Your task to perform on an android device: Go to notification settings Image 0: 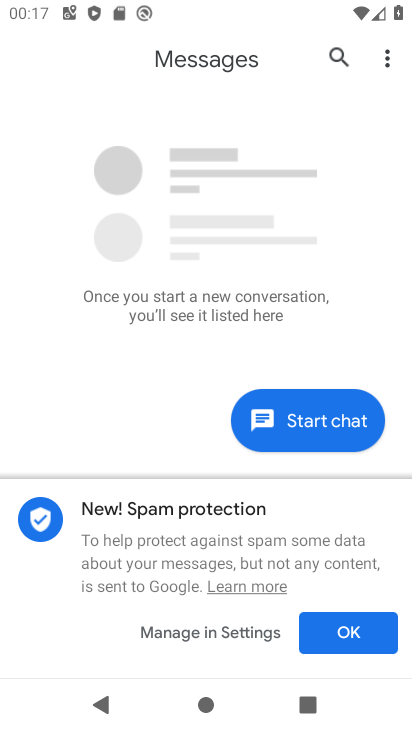
Step 0: press home button
Your task to perform on an android device: Go to notification settings Image 1: 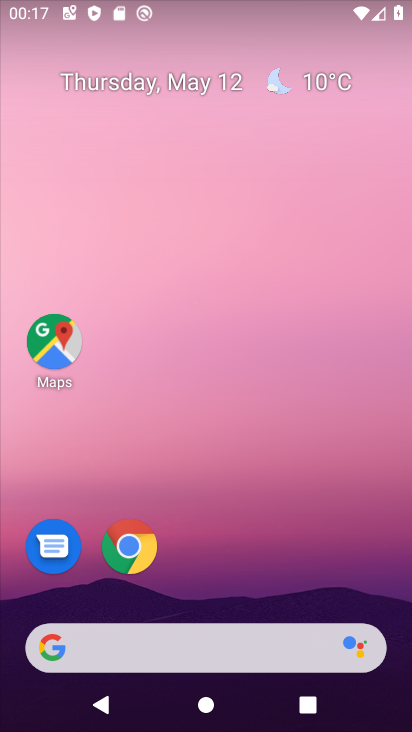
Step 1: drag from (194, 591) to (287, 266)
Your task to perform on an android device: Go to notification settings Image 2: 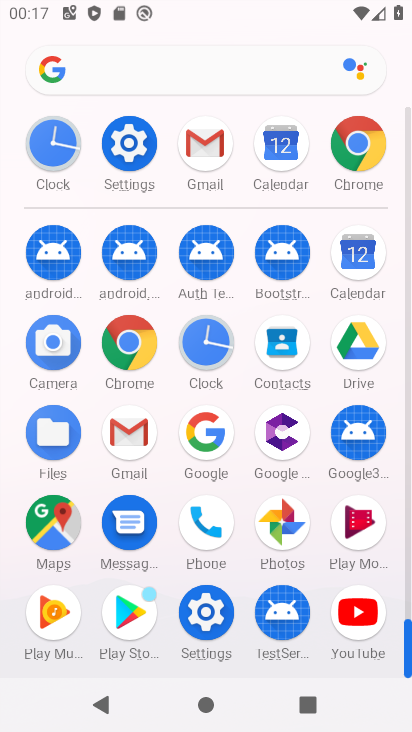
Step 2: click (208, 615)
Your task to perform on an android device: Go to notification settings Image 3: 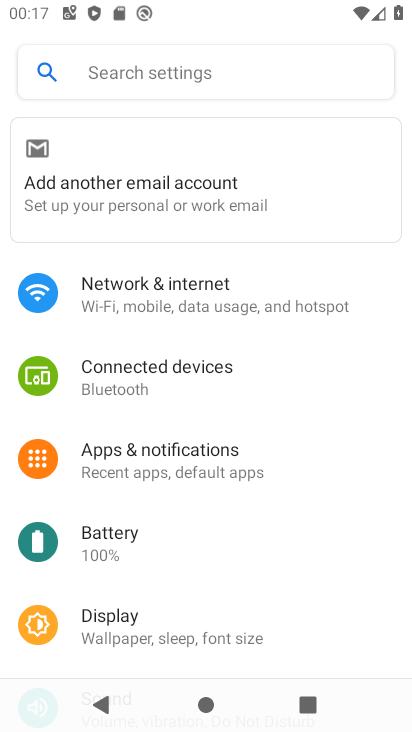
Step 3: click (190, 475)
Your task to perform on an android device: Go to notification settings Image 4: 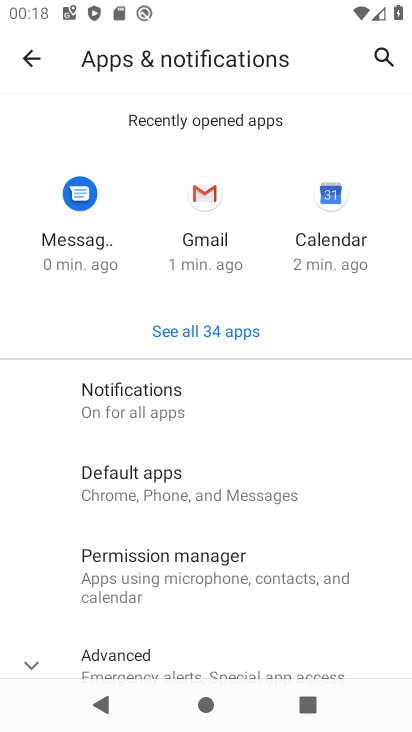
Step 4: task complete